Your task to perform on an android device: turn on wifi Image 0: 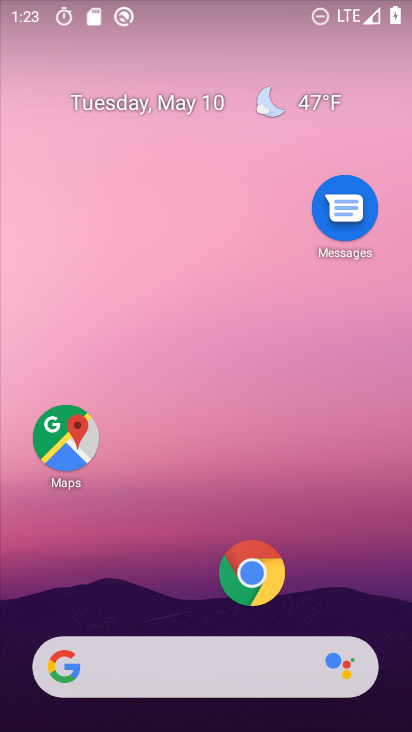
Step 0: drag from (176, 610) to (236, 117)
Your task to perform on an android device: turn on wifi Image 1: 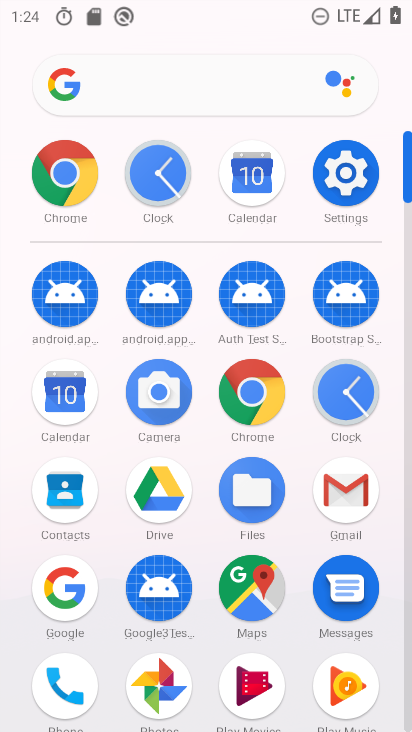
Step 1: click (344, 172)
Your task to perform on an android device: turn on wifi Image 2: 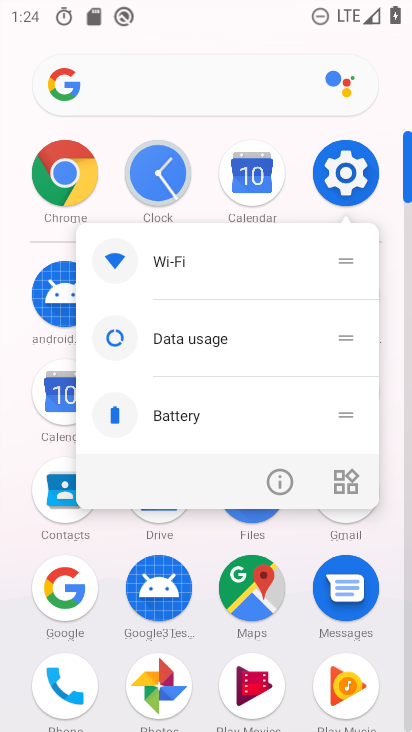
Step 2: click (274, 489)
Your task to perform on an android device: turn on wifi Image 3: 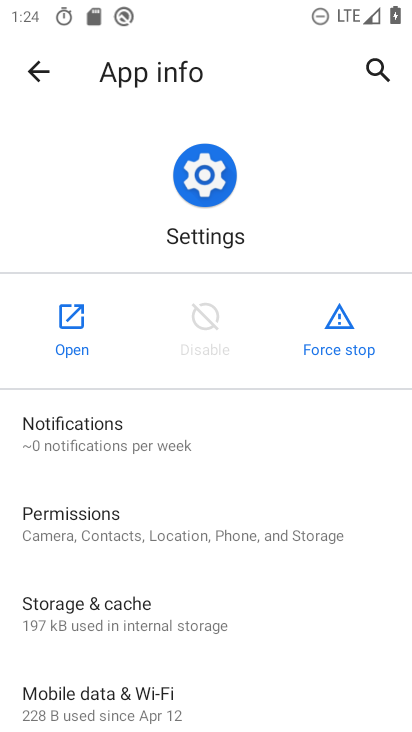
Step 3: click (62, 331)
Your task to perform on an android device: turn on wifi Image 4: 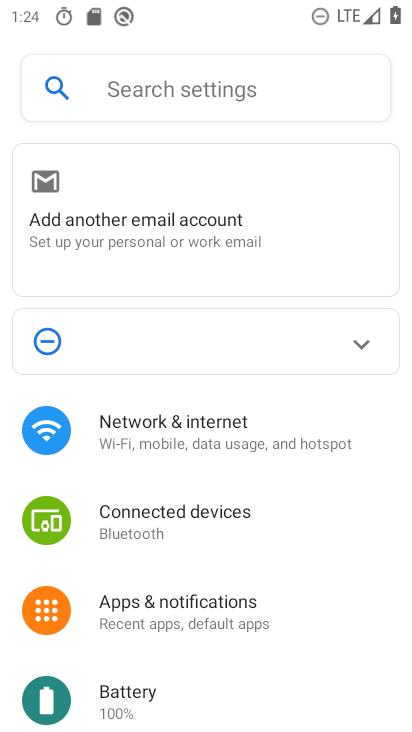
Step 4: click (137, 424)
Your task to perform on an android device: turn on wifi Image 5: 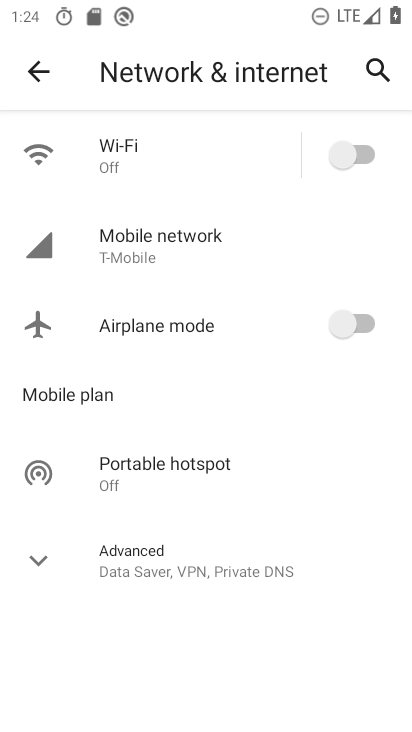
Step 5: click (323, 165)
Your task to perform on an android device: turn on wifi Image 6: 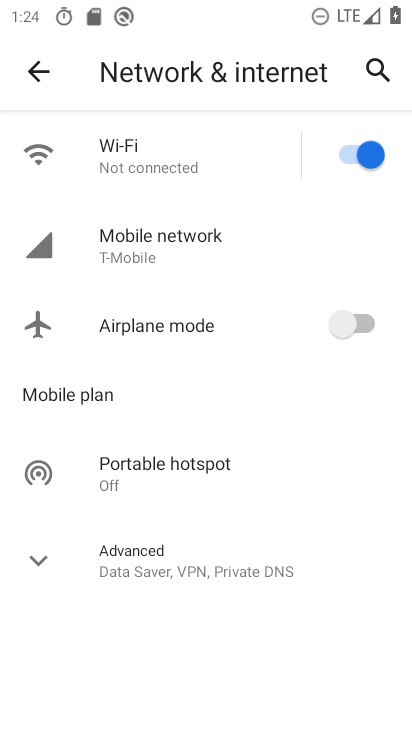
Step 6: task complete